Your task to perform on an android device: find photos in the google photos app Image 0: 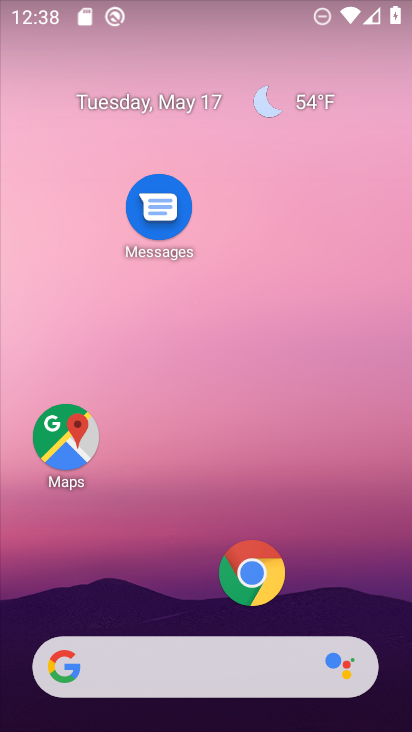
Step 0: drag from (196, 612) to (211, 40)
Your task to perform on an android device: find photos in the google photos app Image 1: 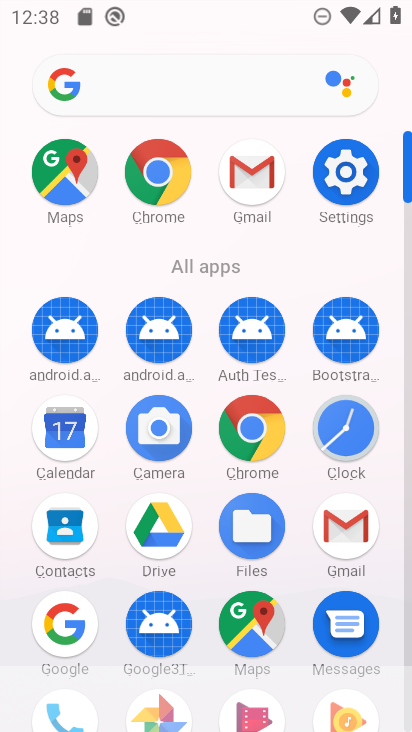
Step 1: drag from (203, 577) to (213, 216)
Your task to perform on an android device: find photos in the google photos app Image 2: 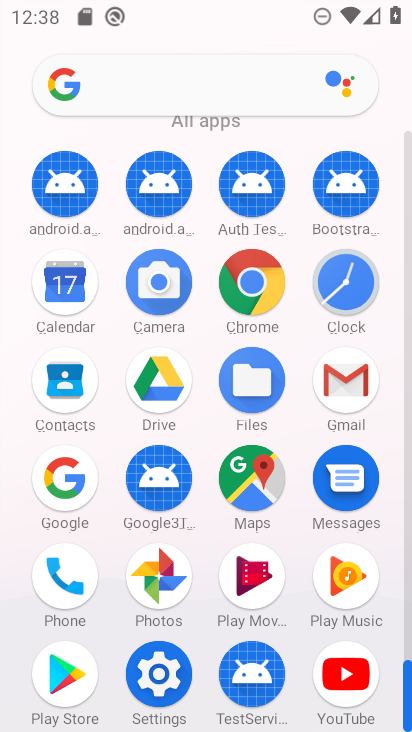
Step 2: click (155, 572)
Your task to perform on an android device: find photos in the google photos app Image 3: 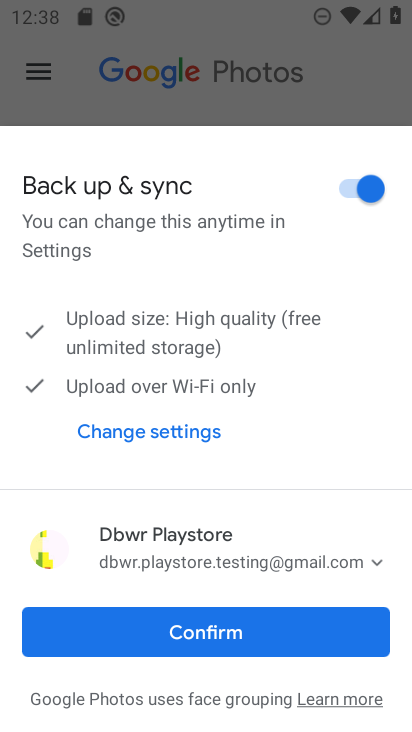
Step 3: click (216, 629)
Your task to perform on an android device: find photos in the google photos app Image 4: 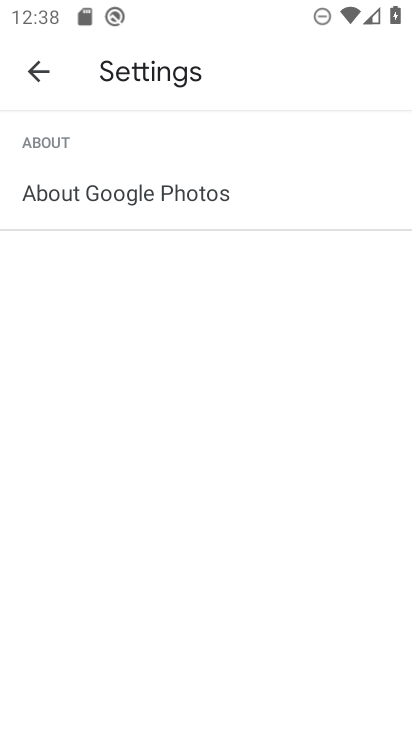
Step 4: click (50, 68)
Your task to perform on an android device: find photos in the google photos app Image 5: 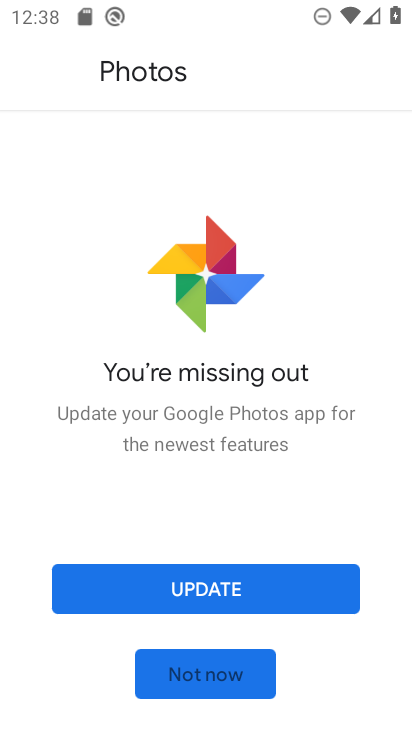
Step 5: click (216, 592)
Your task to perform on an android device: find photos in the google photos app Image 6: 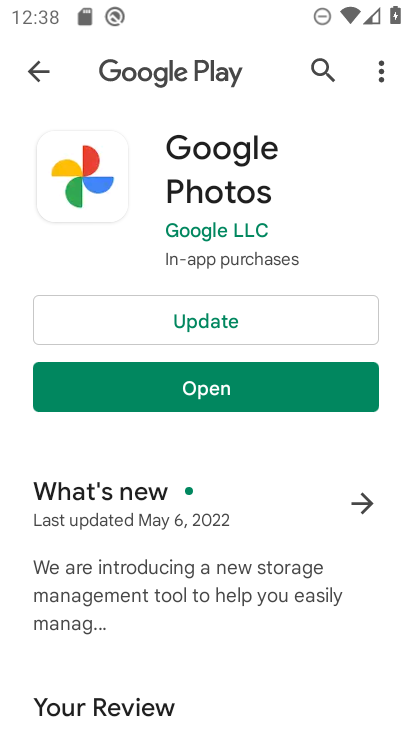
Step 6: click (202, 314)
Your task to perform on an android device: find photos in the google photos app Image 7: 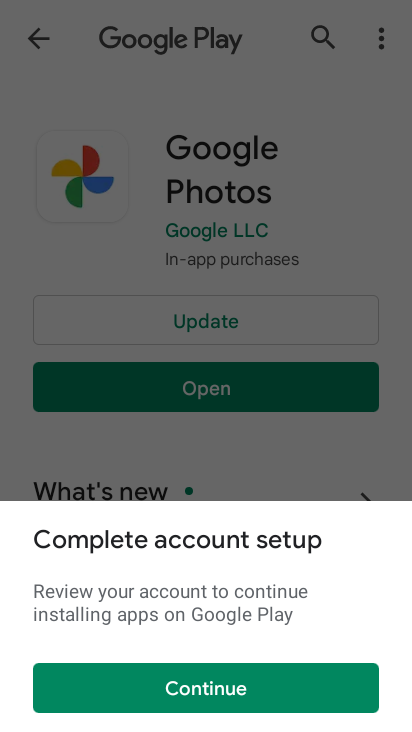
Step 7: click (219, 691)
Your task to perform on an android device: find photos in the google photos app Image 8: 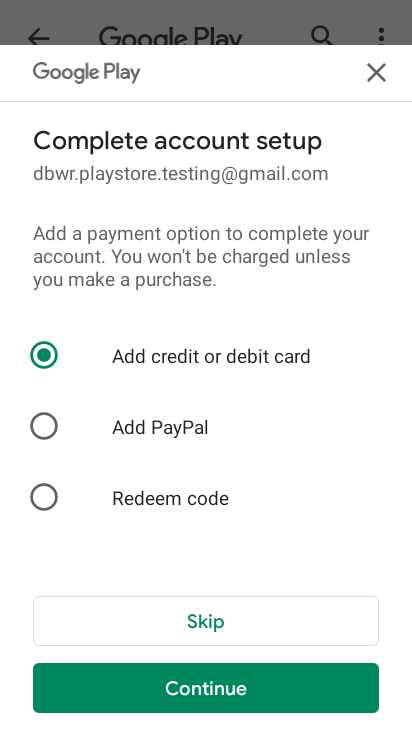
Step 8: click (377, 65)
Your task to perform on an android device: find photos in the google photos app Image 9: 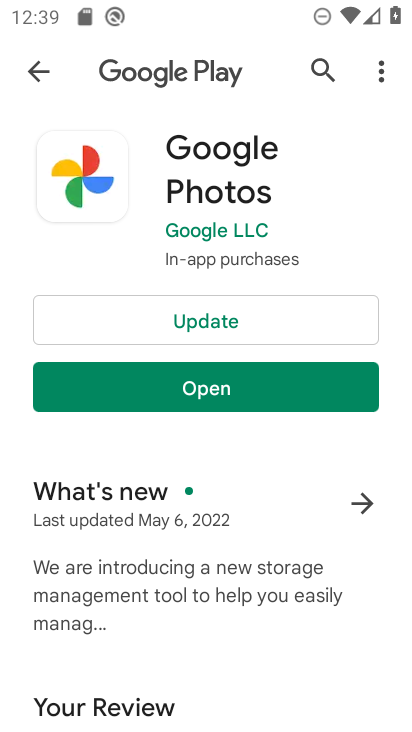
Step 9: click (181, 321)
Your task to perform on an android device: find photos in the google photos app Image 10: 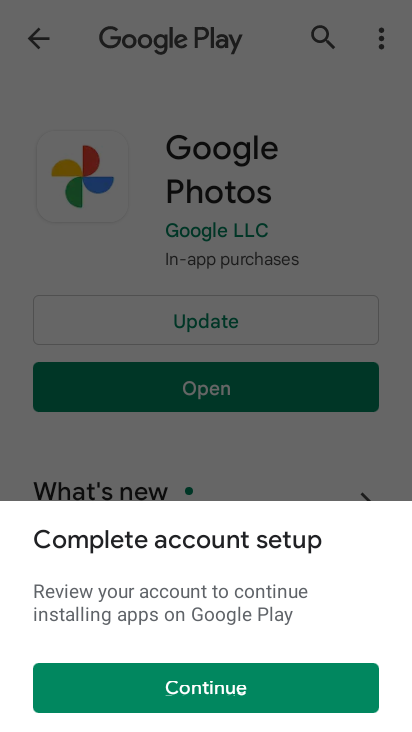
Step 10: task complete